Your task to perform on an android device: What's the news in Indonesia? Image 0: 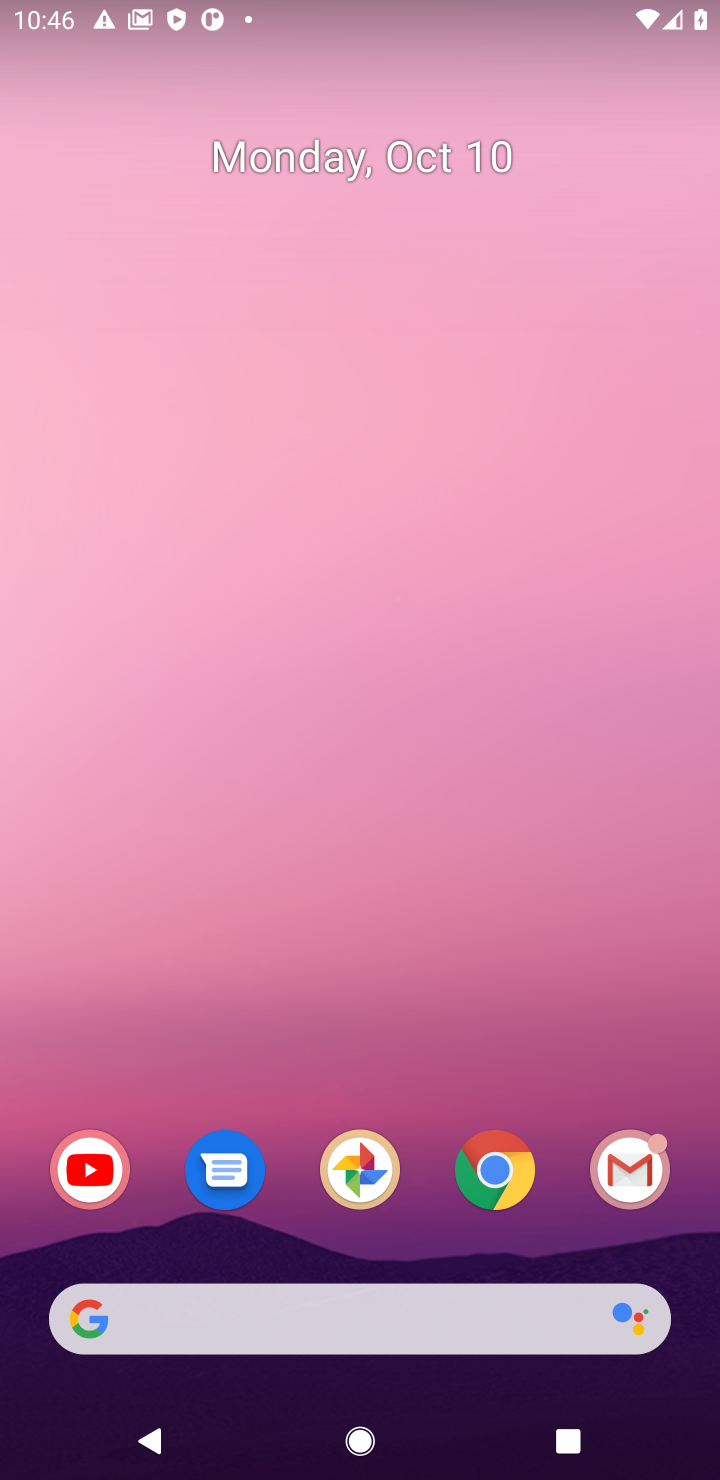
Step 0: click (159, 9)
Your task to perform on an android device: What's the news in Indonesia? Image 1: 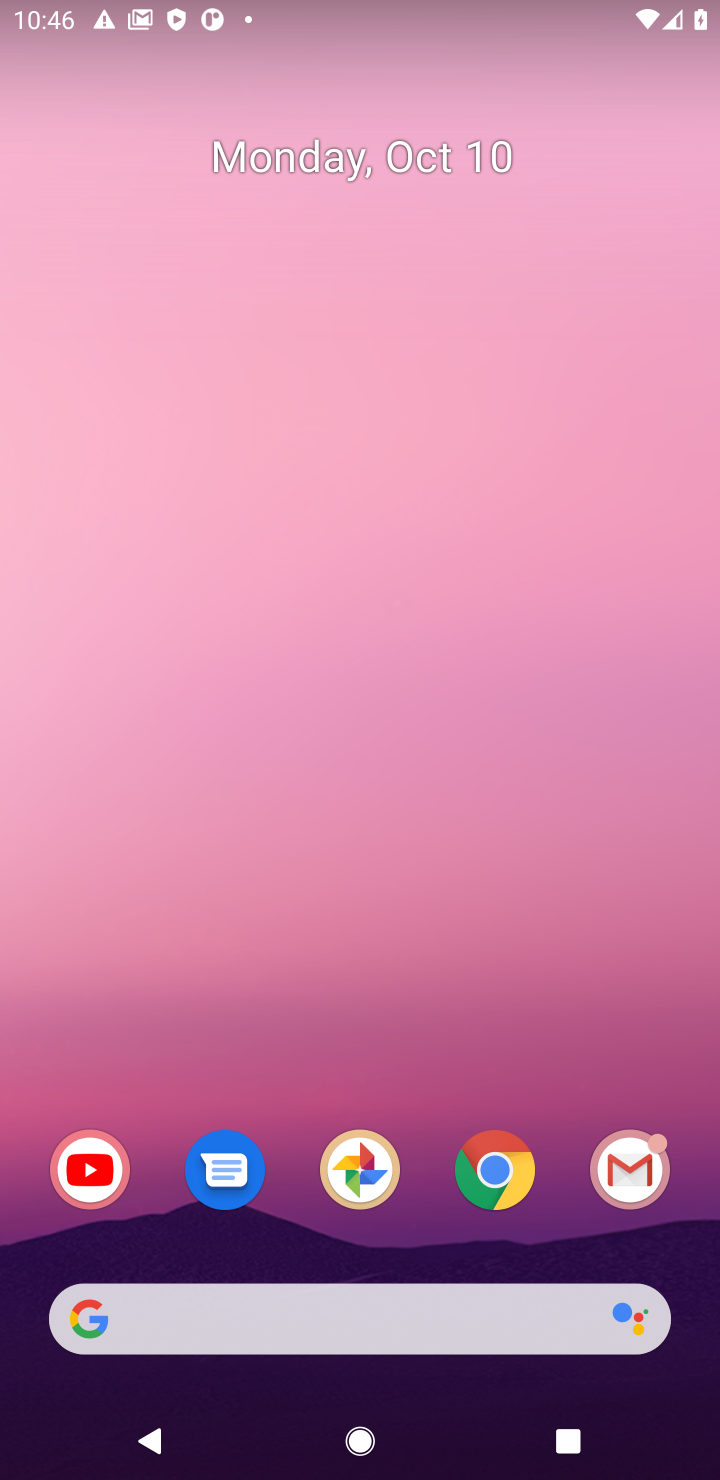
Step 1: drag from (405, 1085) to (518, 186)
Your task to perform on an android device: What's the news in Indonesia? Image 2: 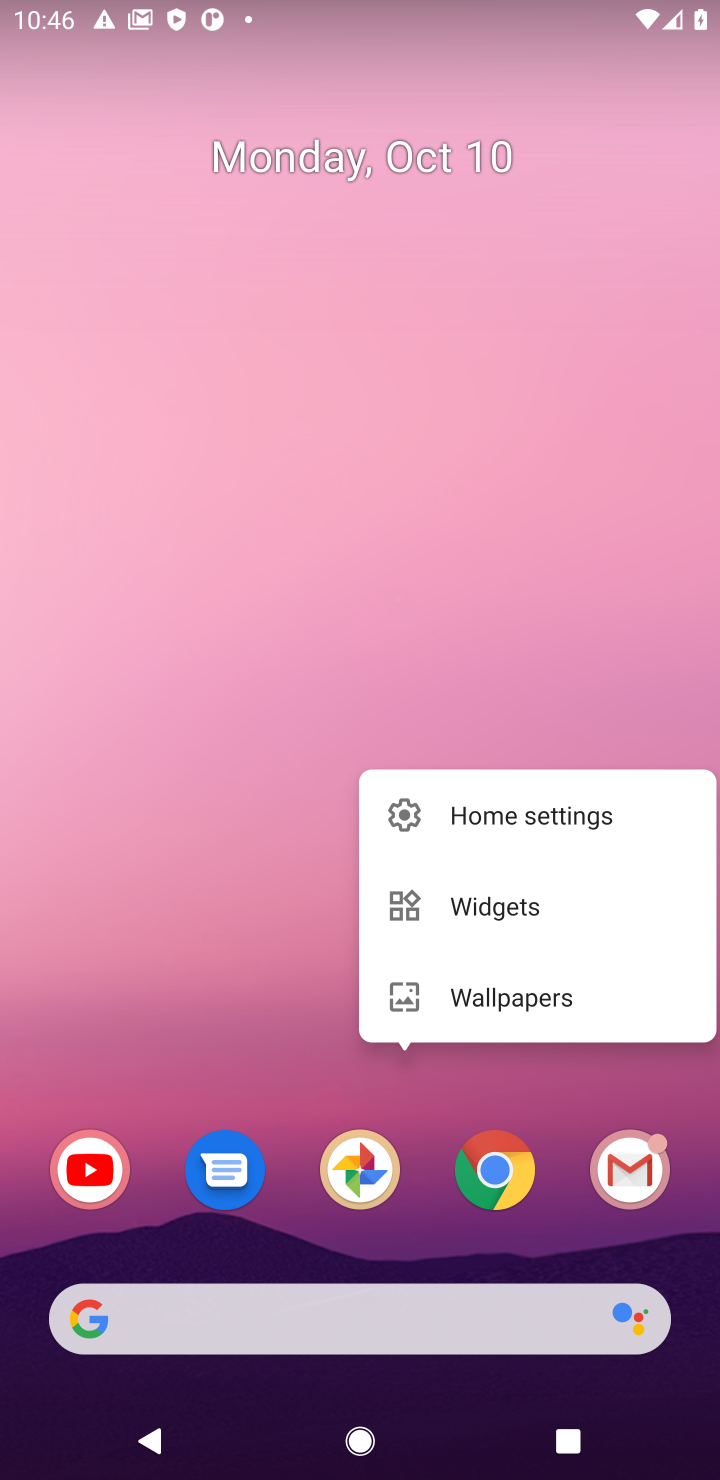
Step 2: click (415, 537)
Your task to perform on an android device: What's the news in Indonesia? Image 3: 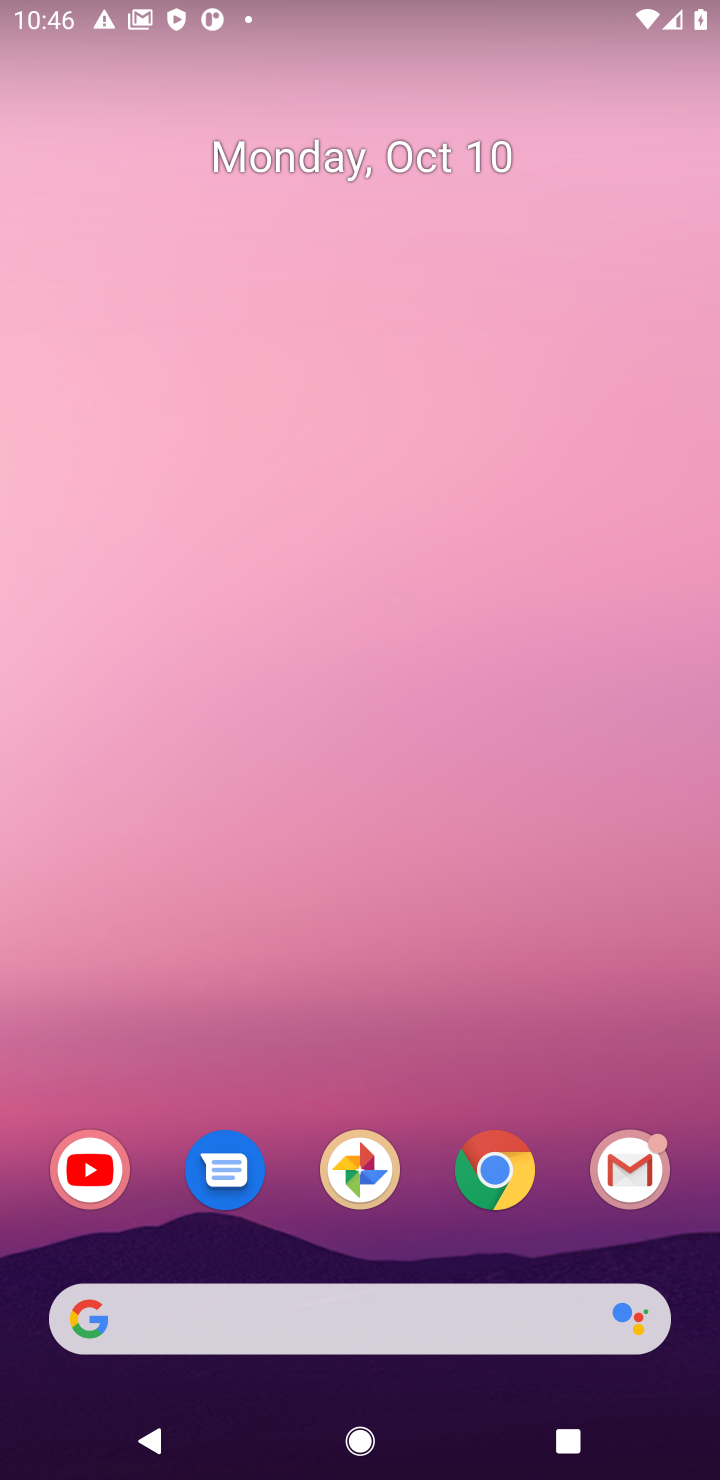
Step 3: drag from (436, 820) to (502, 3)
Your task to perform on an android device: What's the news in Indonesia? Image 4: 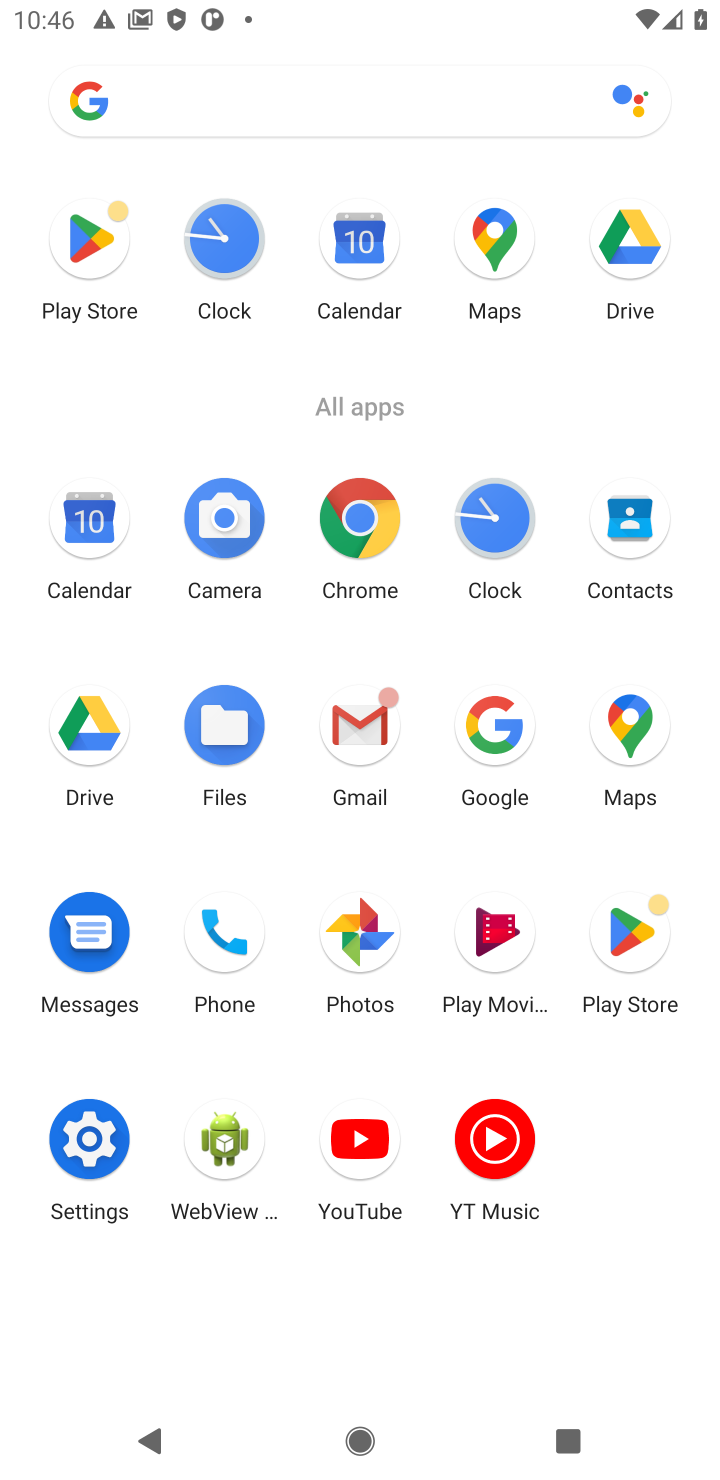
Step 4: click (497, 738)
Your task to perform on an android device: What's the news in Indonesia? Image 5: 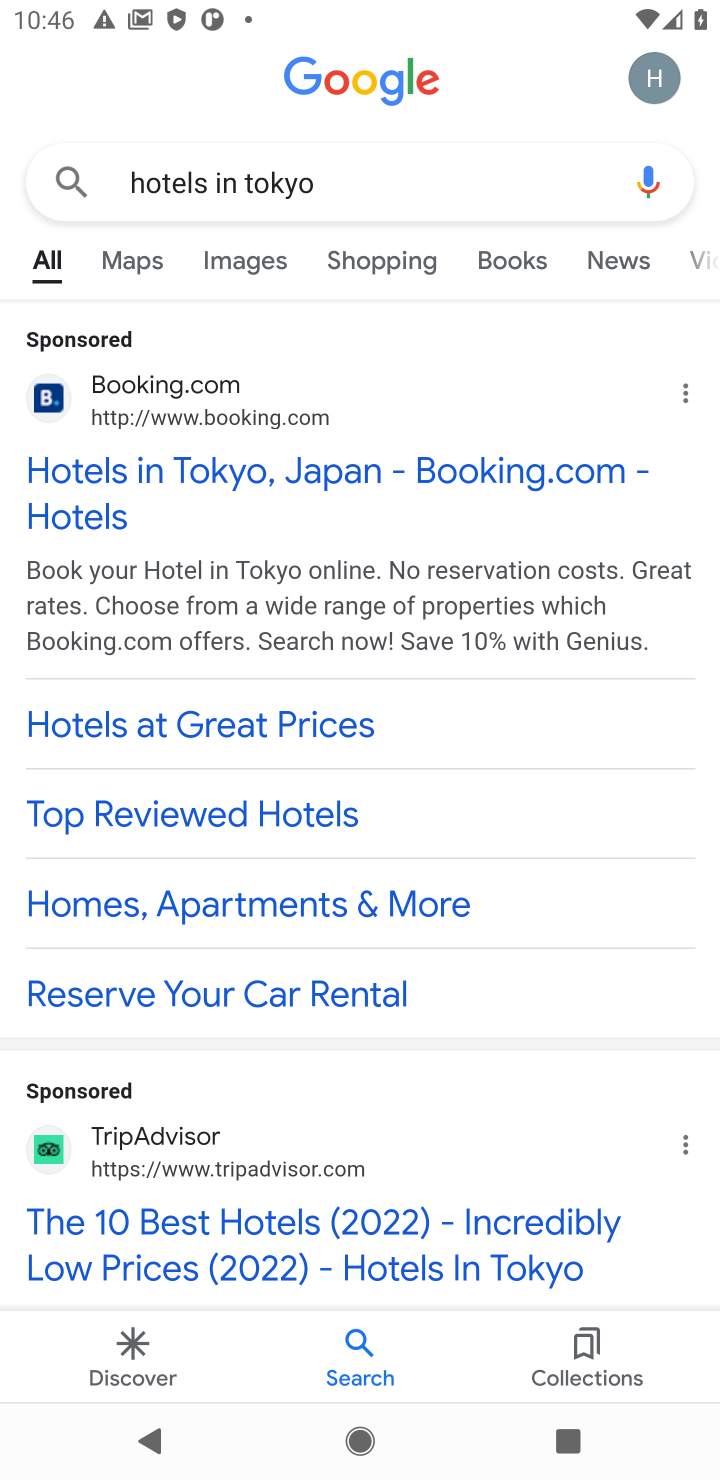
Step 5: click (528, 172)
Your task to perform on an android device: What's the news in Indonesia? Image 6: 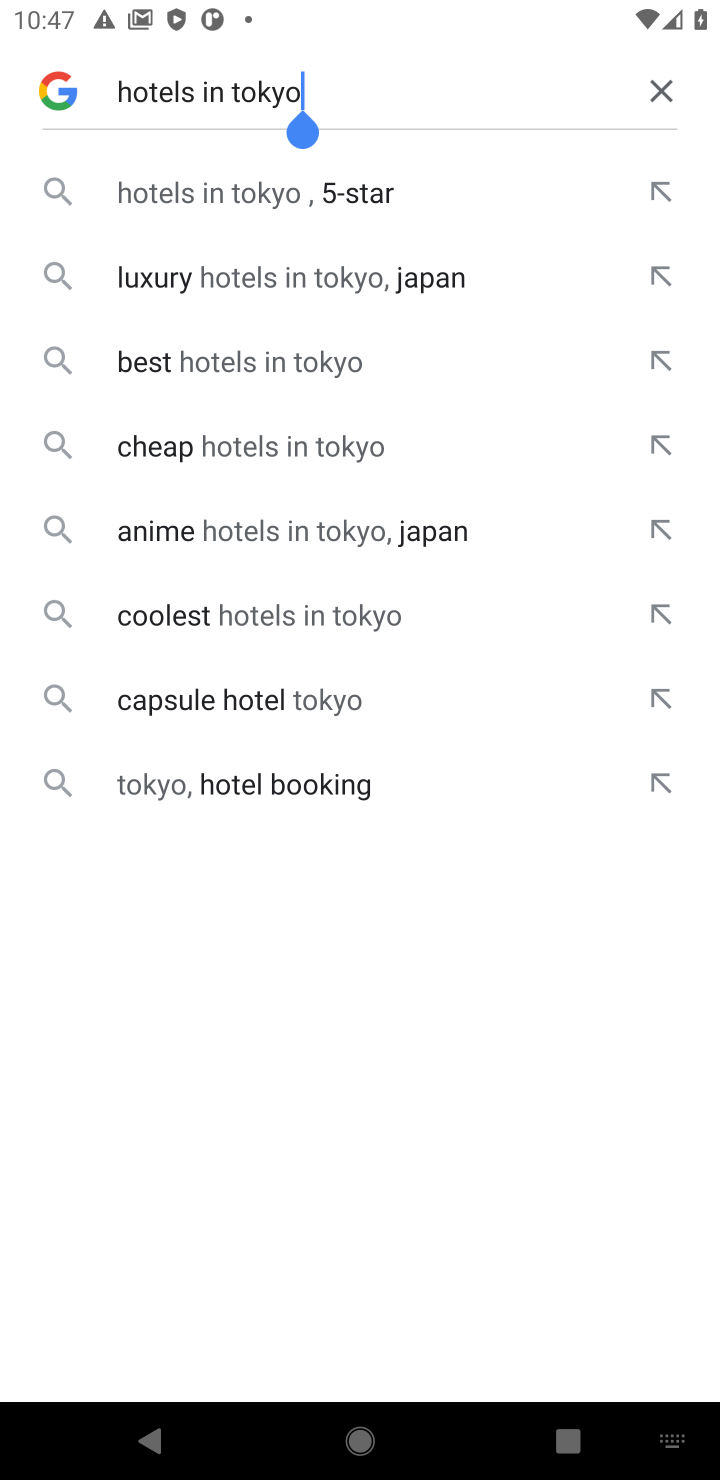
Step 6: click (656, 85)
Your task to perform on an android device: What's the news in Indonesia? Image 7: 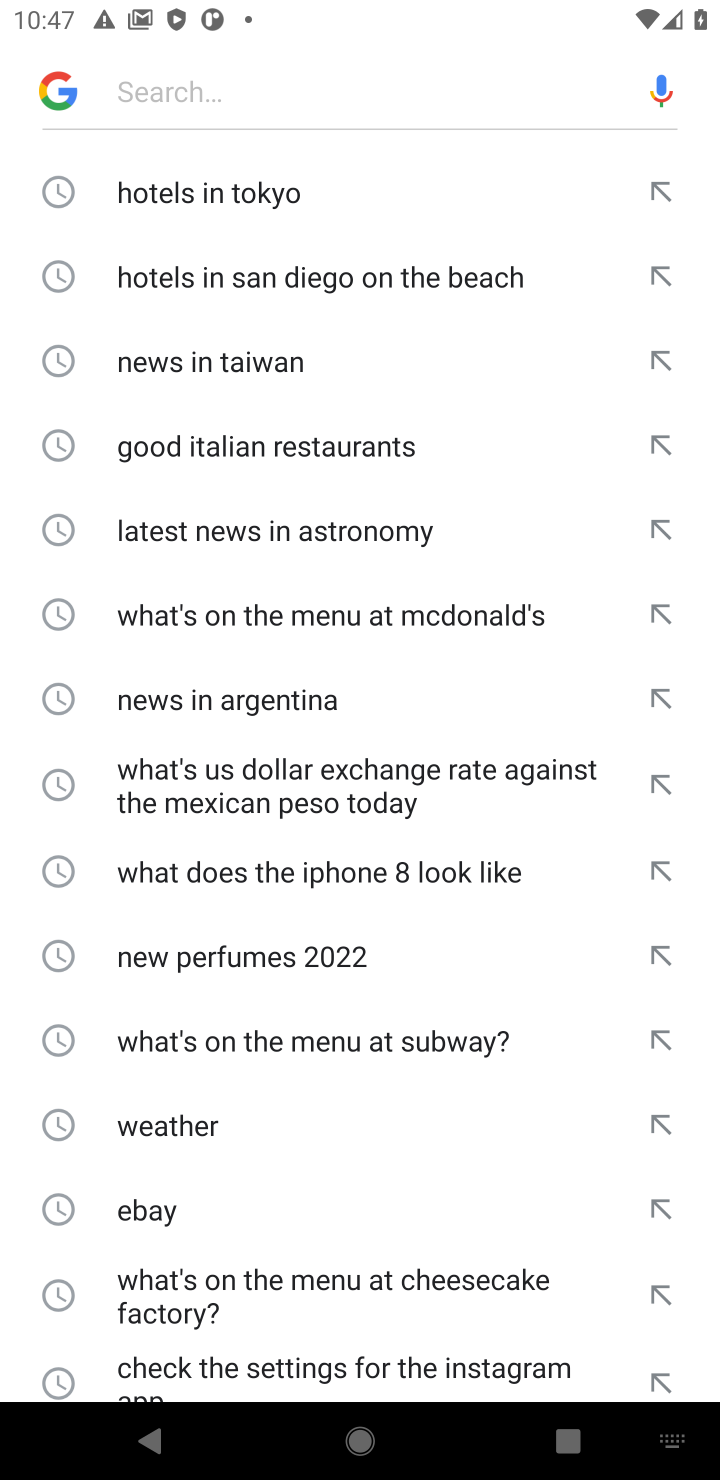
Step 7: type "hotels in Tokyo"
Your task to perform on an android device: What's the news in Indonesia? Image 8: 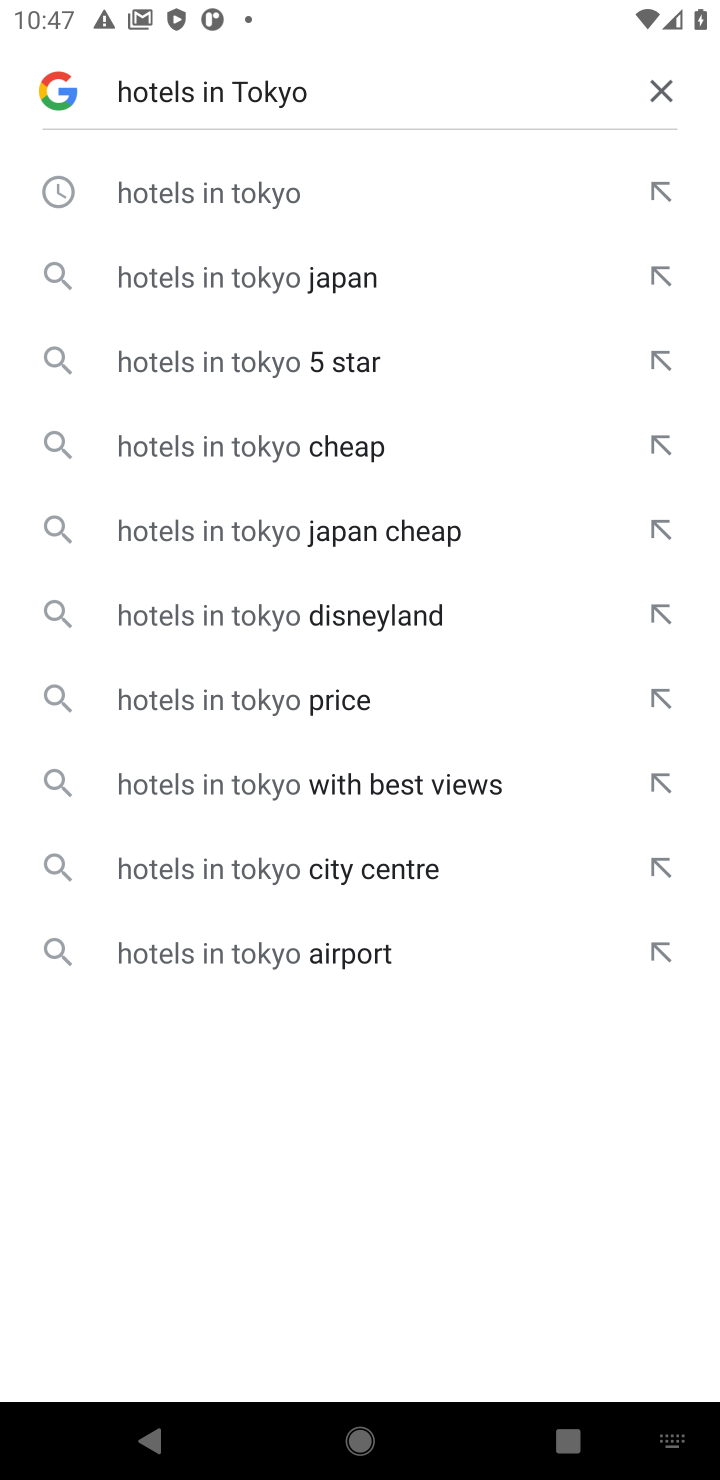
Step 8: click (667, 105)
Your task to perform on an android device: What's the news in Indonesia? Image 9: 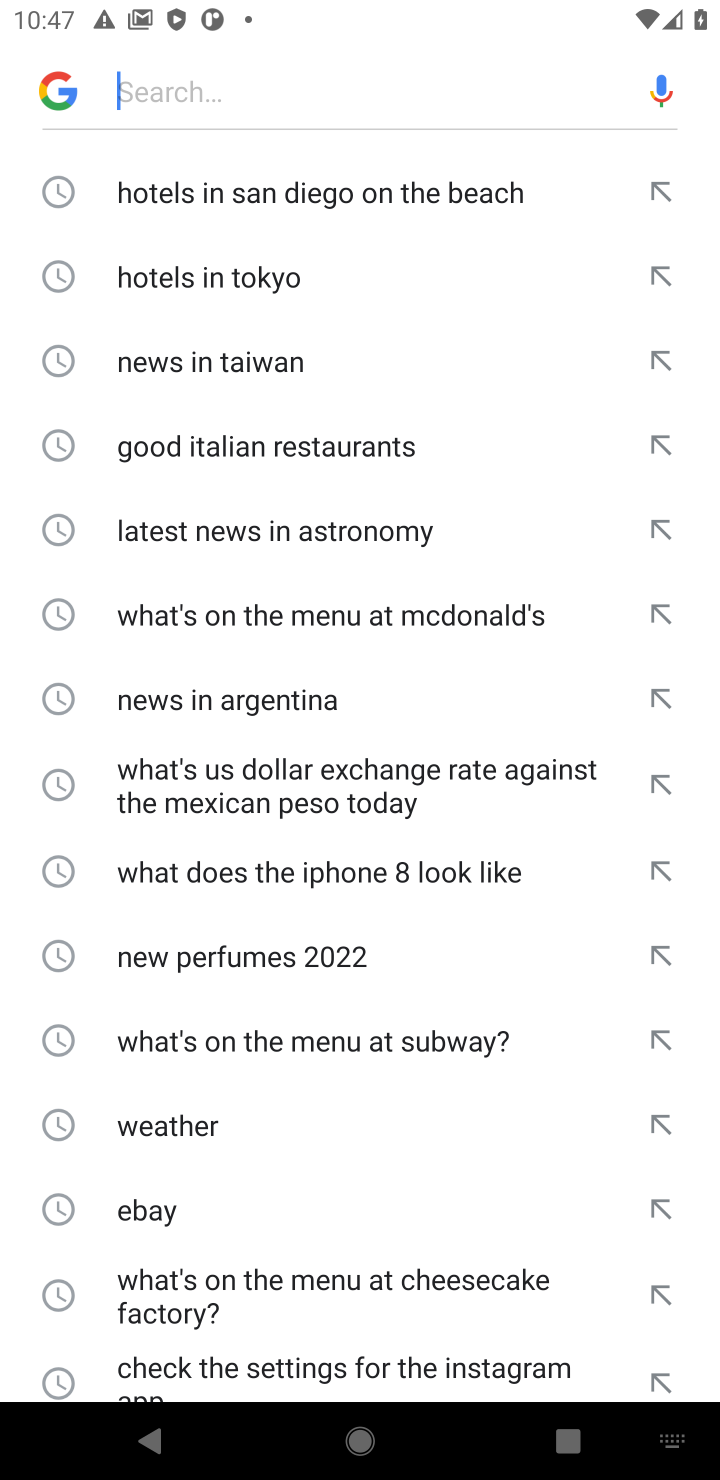
Step 9: type "news in Indonesia"
Your task to perform on an android device: What's the news in Indonesia? Image 10: 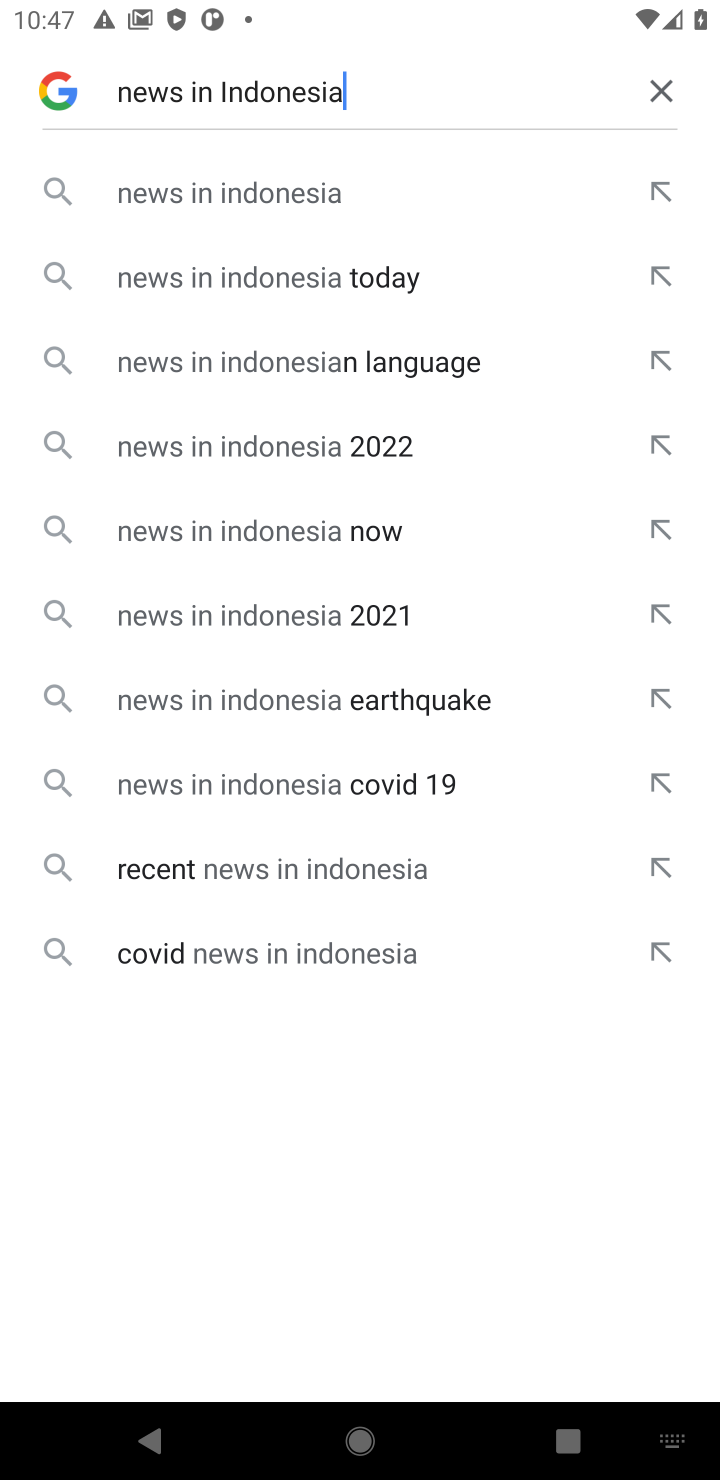
Step 10: click (360, 202)
Your task to perform on an android device: What's the news in Indonesia? Image 11: 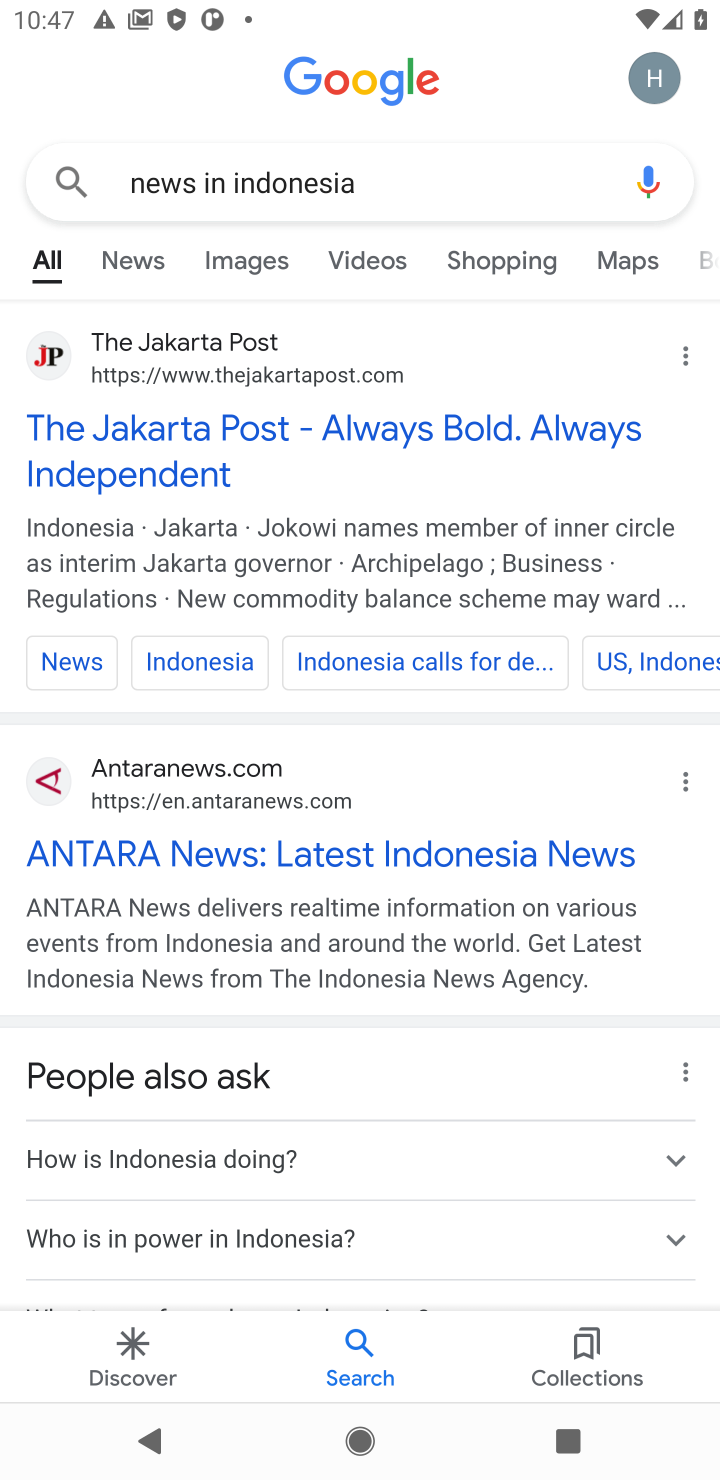
Step 11: click (130, 254)
Your task to perform on an android device: What's the news in Indonesia? Image 12: 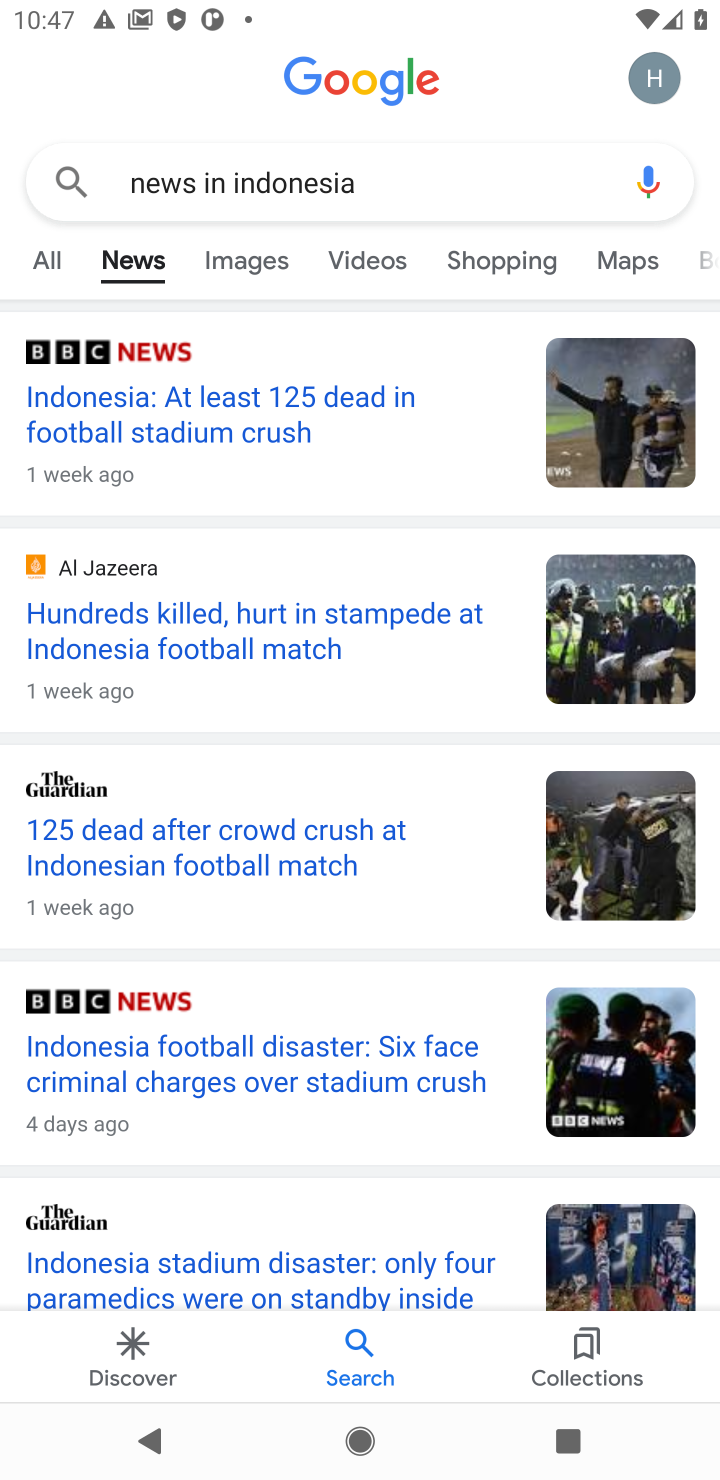
Step 12: task complete